Your task to perform on an android device: turn off smart reply in the gmail app Image 0: 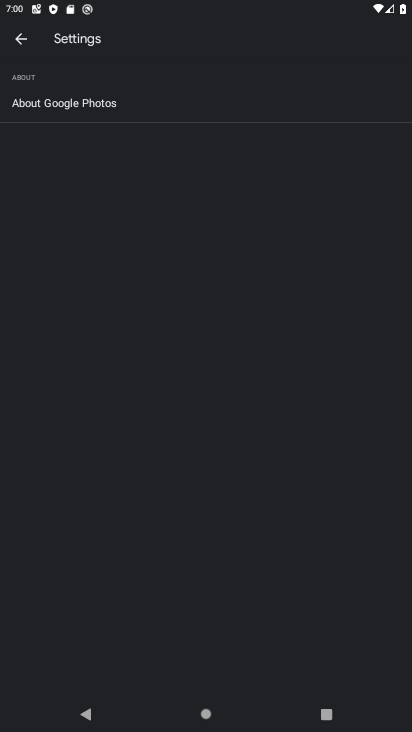
Step 0: press home button
Your task to perform on an android device: turn off smart reply in the gmail app Image 1: 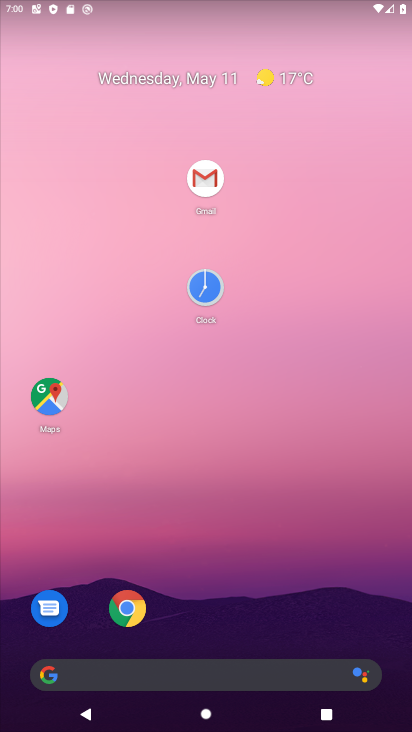
Step 1: click (215, 169)
Your task to perform on an android device: turn off smart reply in the gmail app Image 2: 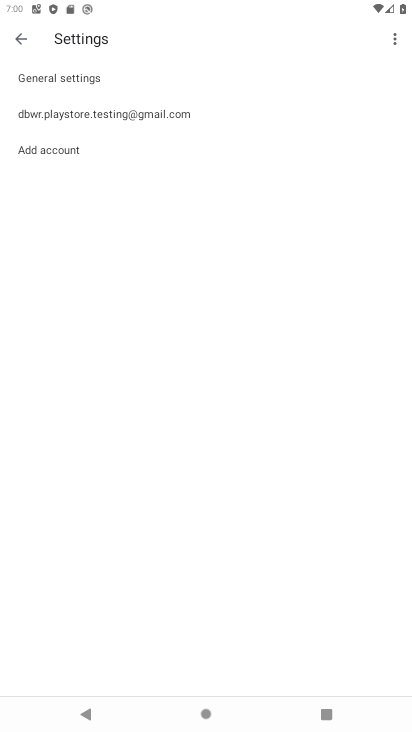
Step 2: click (156, 119)
Your task to perform on an android device: turn off smart reply in the gmail app Image 3: 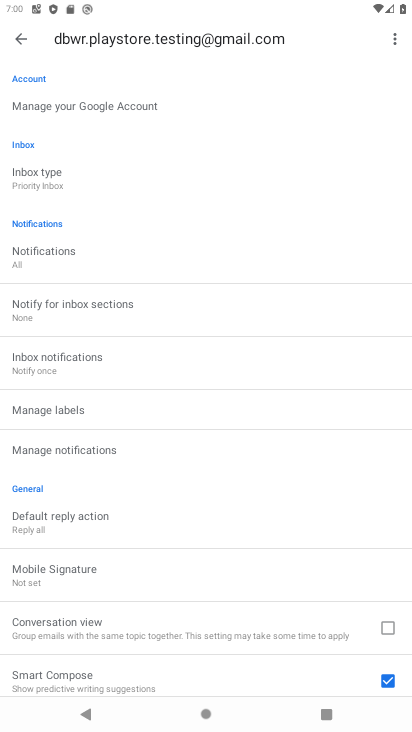
Step 3: drag from (171, 585) to (231, 268)
Your task to perform on an android device: turn off smart reply in the gmail app Image 4: 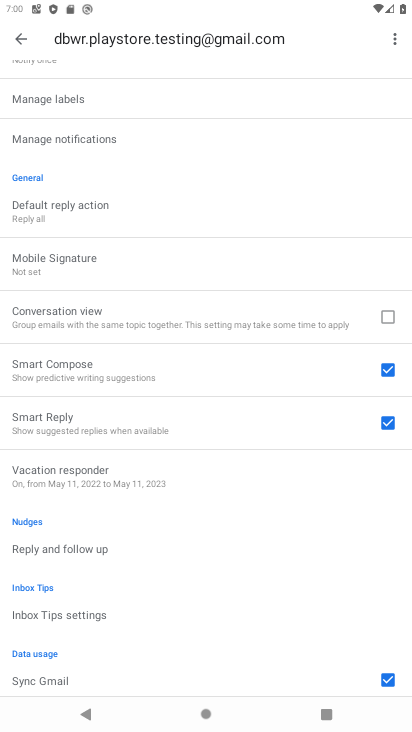
Step 4: click (386, 417)
Your task to perform on an android device: turn off smart reply in the gmail app Image 5: 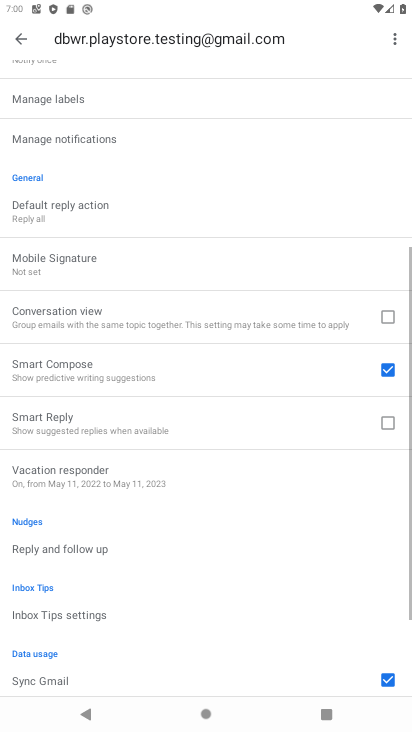
Step 5: task complete